Your task to perform on an android device: Open sound settings Image 0: 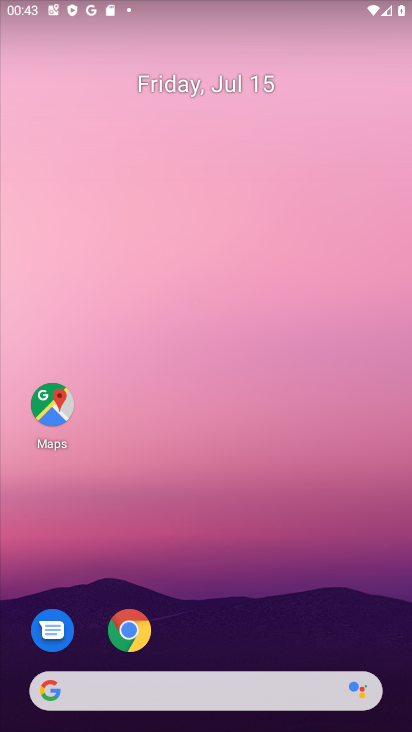
Step 0: task complete